Your task to perform on an android device: Open Reddit.com Image 0: 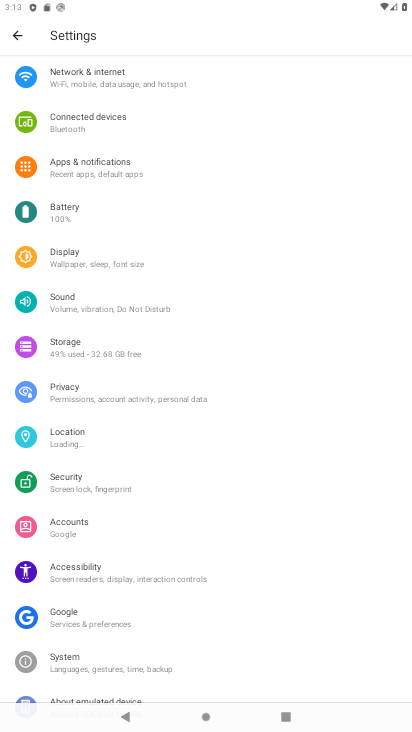
Step 0: press home button
Your task to perform on an android device: Open Reddit.com Image 1: 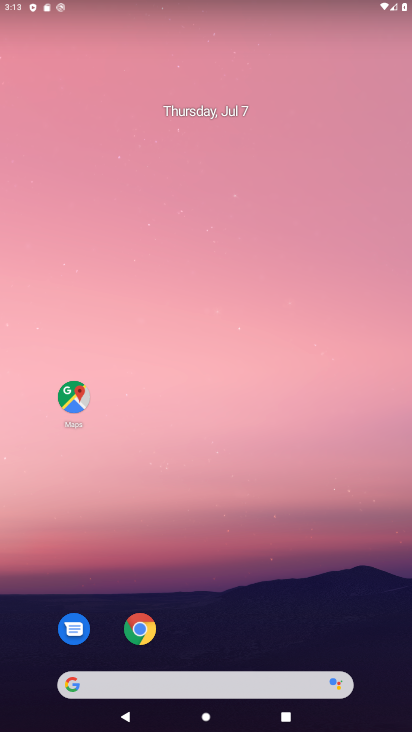
Step 1: click (108, 679)
Your task to perform on an android device: Open Reddit.com Image 2: 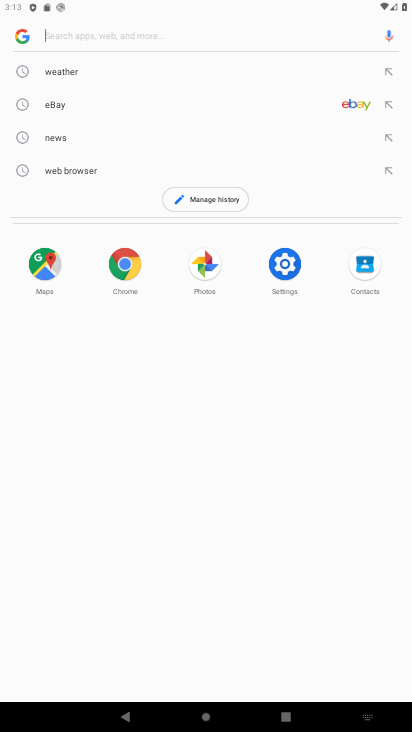
Step 2: type "Reddit.com"
Your task to perform on an android device: Open Reddit.com Image 3: 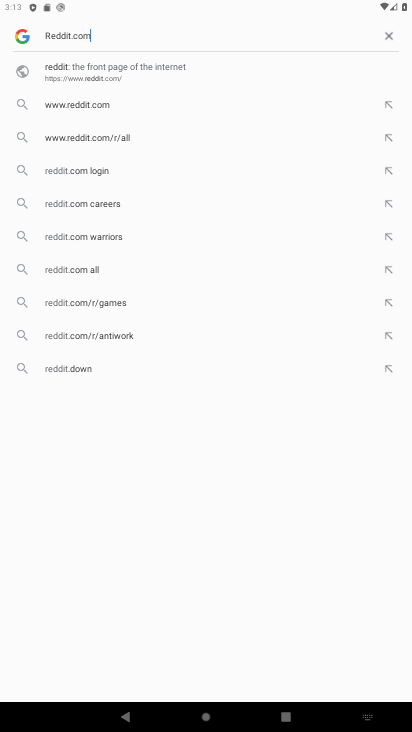
Step 3: type ""
Your task to perform on an android device: Open Reddit.com Image 4: 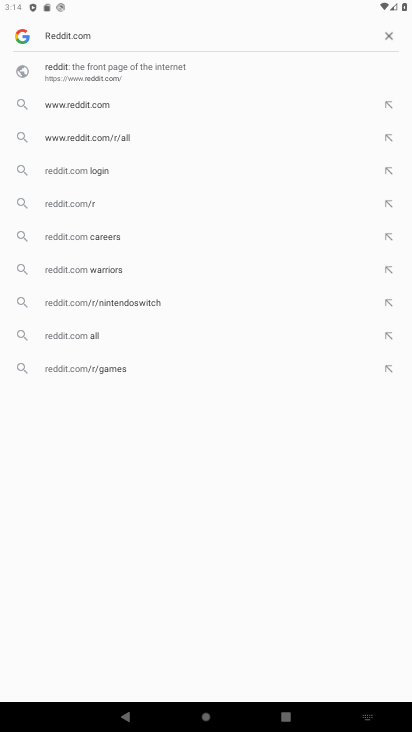
Step 4: type "  "
Your task to perform on an android device: Open Reddit.com Image 5: 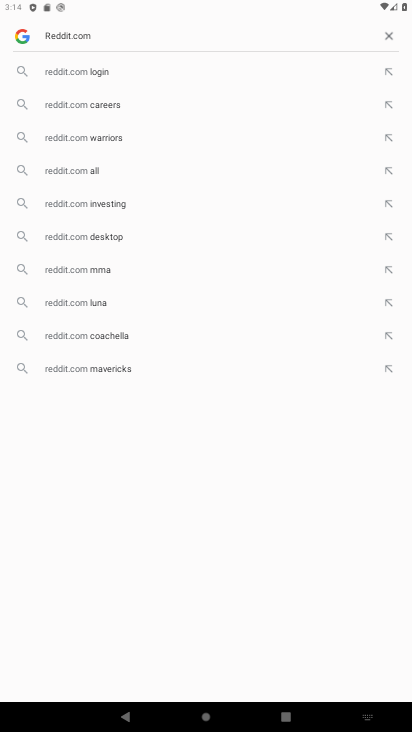
Step 5: click (130, 22)
Your task to perform on an android device: Open Reddit.com Image 6: 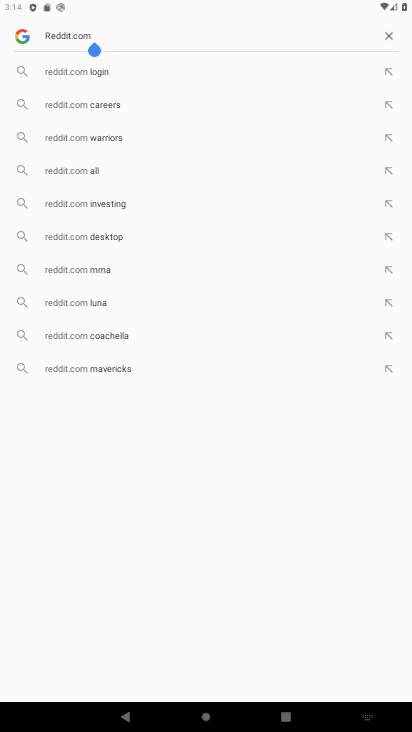
Step 6: click (114, 31)
Your task to perform on an android device: Open Reddit.com Image 7: 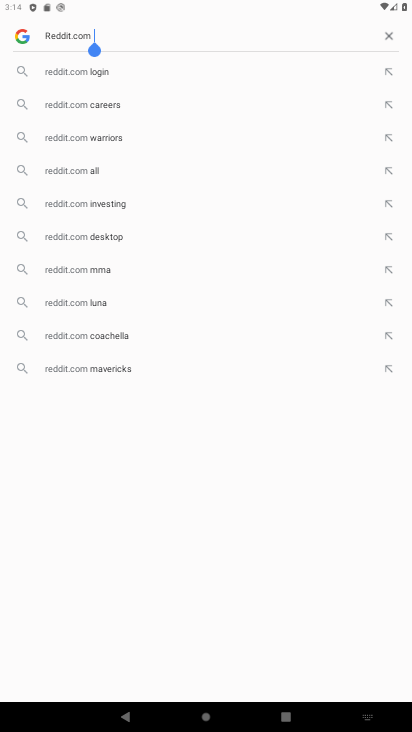
Step 7: click (114, 31)
Your task to perform on an android device: Open Reddit.com Image 8: 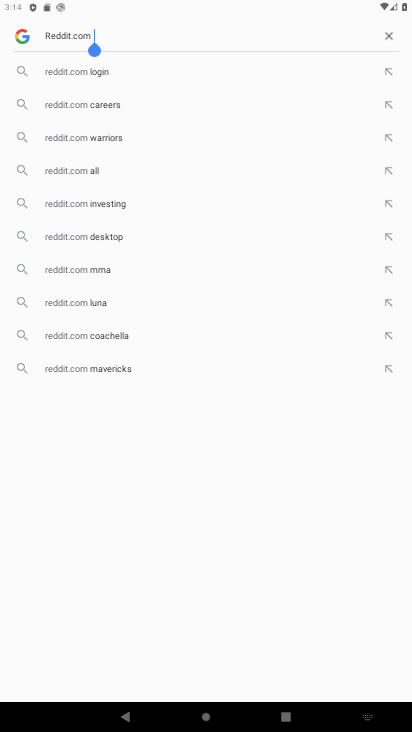
Step 8: click (77, 78)
Your task to perform on an android device: Open Reddit.com Image 9: 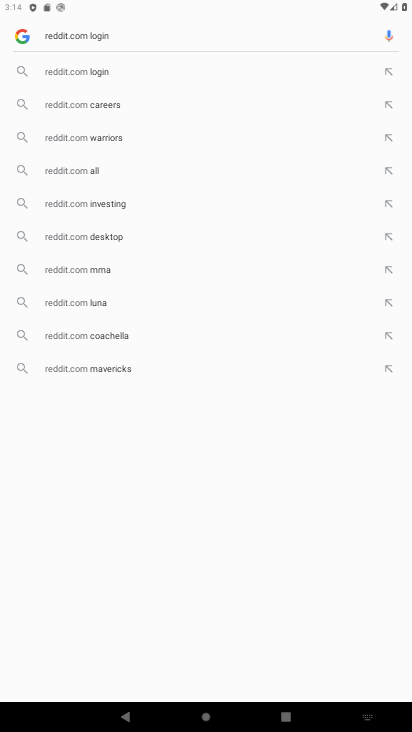
Step 9: click (77, 76)
Your task to perform on an android device: Open Reddit.com Image 10: 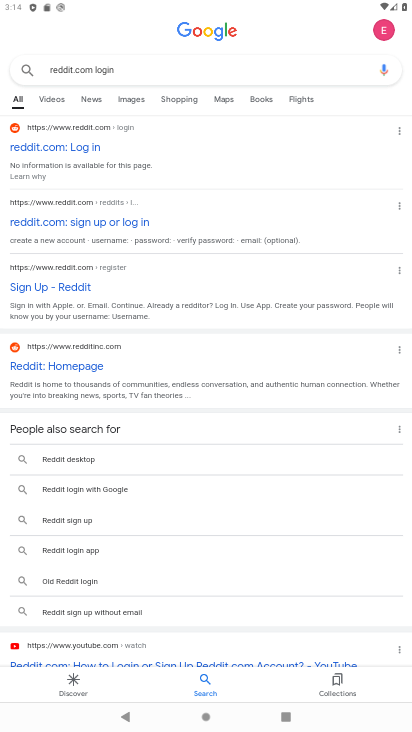
Step 10: task complete